Your task to perform on an android device: delete browsing data in the chrome app Image 0: 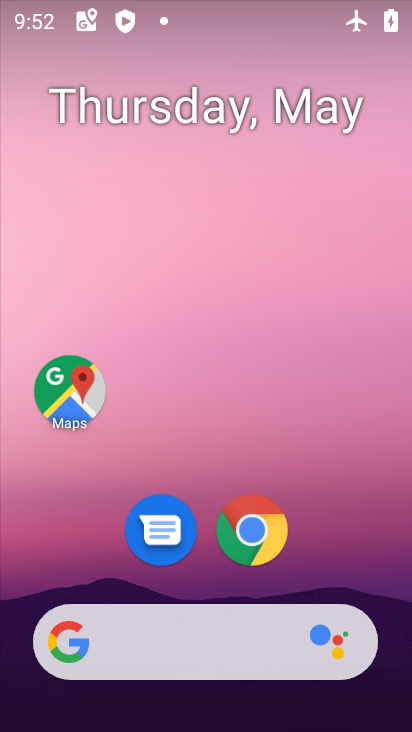
Step 0: click (261, 544)
Your task to perform on an android device: delete browsing data in the chrome app Image 1: 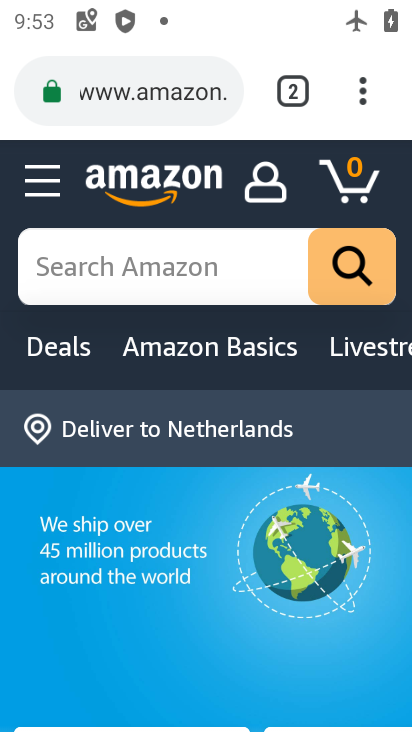
Step 1: click (361, 88)
Your task to perform on an android device: delete browsing data in the chrome app Image 2: 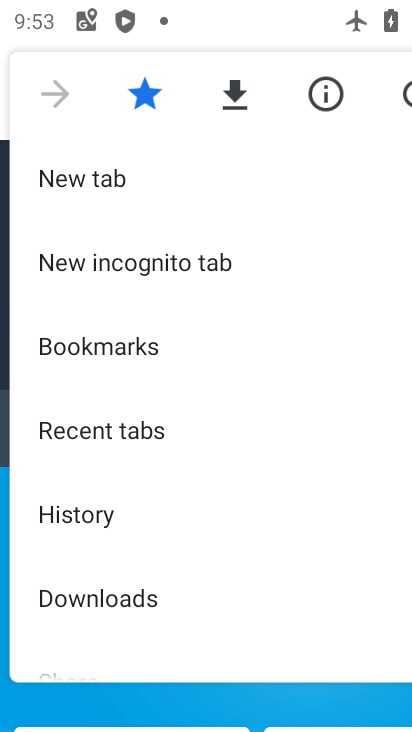
Step 2: click (101, 513)
Your task to perform on an android device: delete browsing data in the chrome app Image 3: 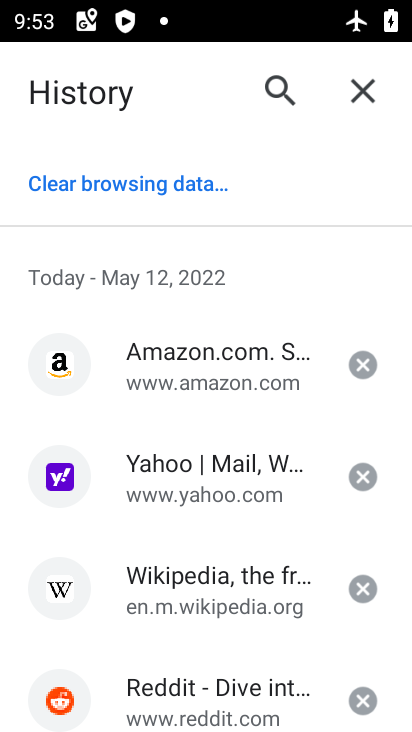
Step 3: click (165, 184)
Your task to perform on an android device: delete browsing data in the chrome app Image 4: 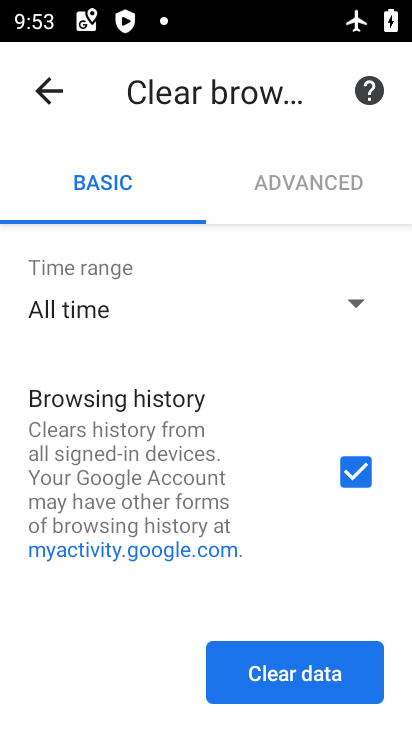
Step 4: click (308, 684)
Your task to perform on an android device: delete browsing data in the chrome app Image 5: 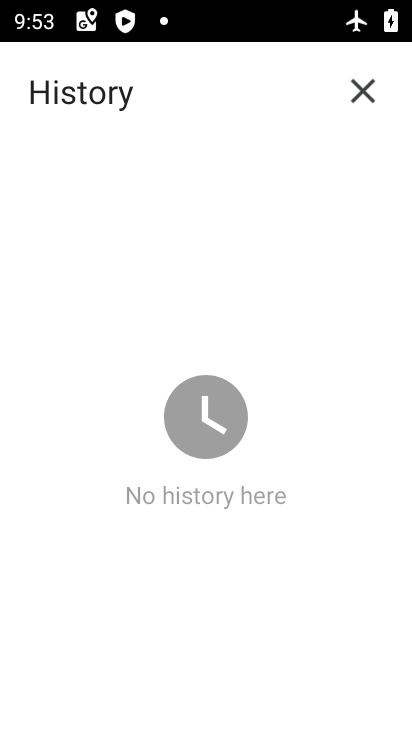
Step 5: task complete